Your task to perform on an android device: set the timer Image 0: 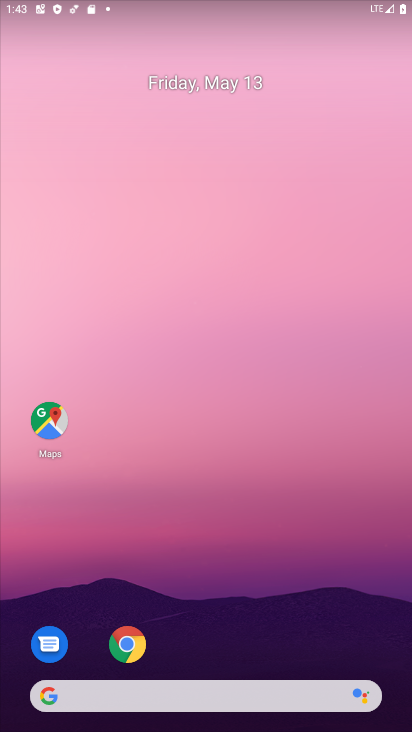
Step 0: drag from (314, 608) to (183, 63)
Your task to perform on an android device: set the timer Image 1: 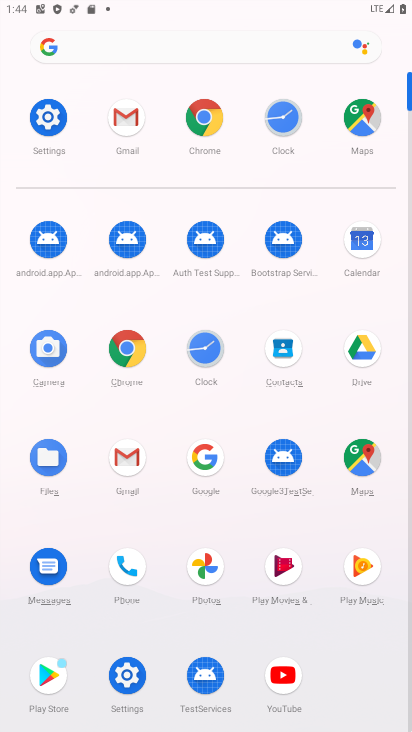
Step 1: click (218, 334)
Your task to perform on an android device: set the timer Image 2: 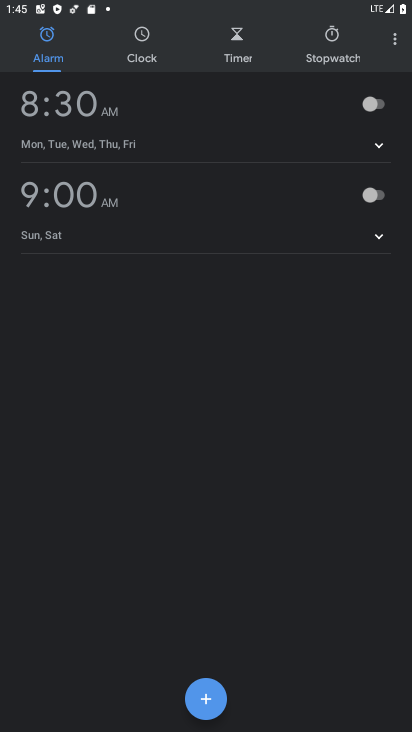
Step 2: click (405, 43)
Your task to perform on an android device: set the timer Image 3: 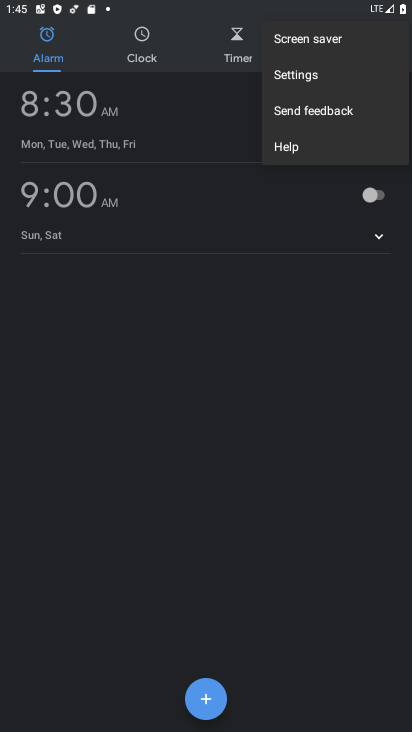
Step 3: click (316, 74)
Your task to perform on an android device: set the timer Image 4: 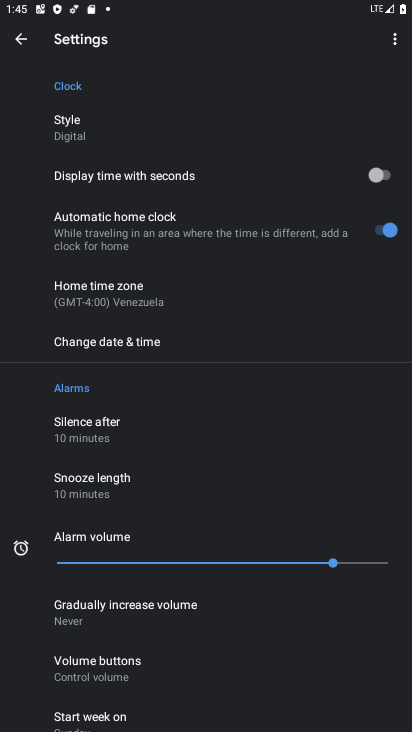
Step 4: click (186, 290)
Your task to perform on an android device: set the timer Image 5: 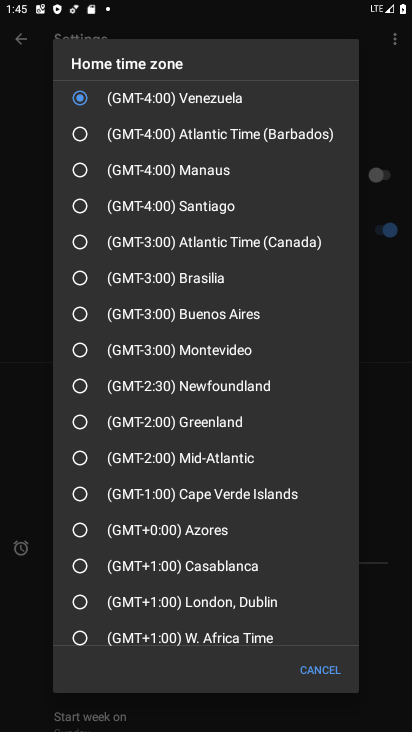
Step 5: click (177, 317)
Your task to perform on an android device: set the timer Image 6: 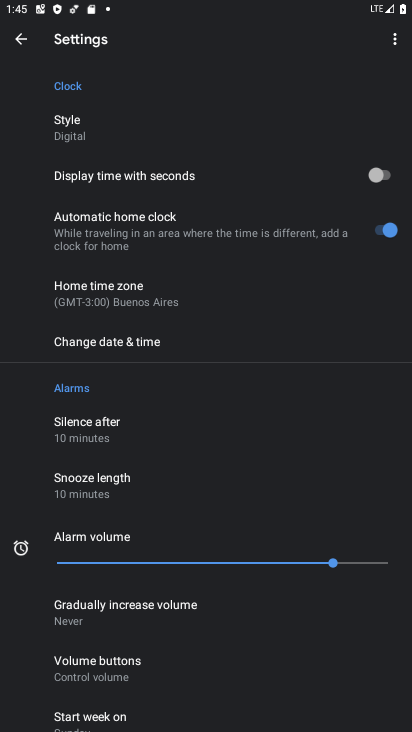
Step 6: task complete